Your task to perform on an android device: Go to accessibility settings Image 0: 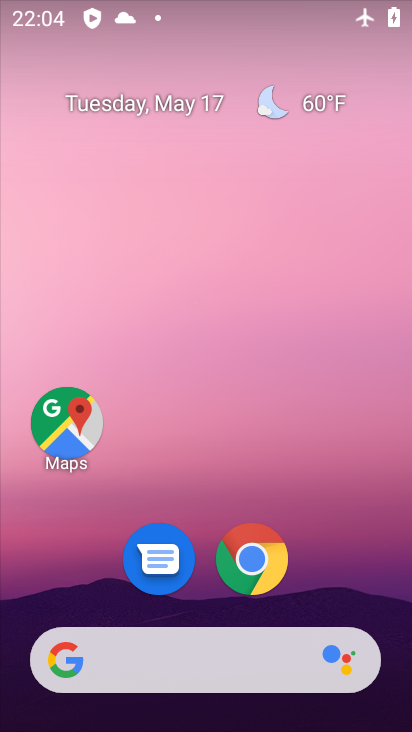
Step 0: drag from (330, 549) to (316, 184)
Your task to perform on an android device: Go to accessibility settings Image 1: 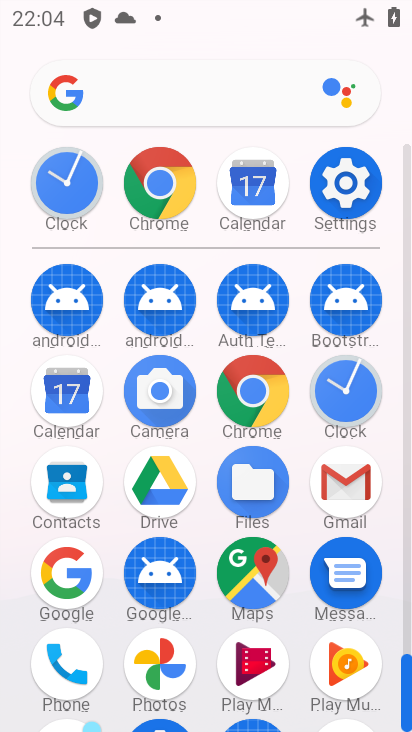
Step 1: click (316, 218)
Your task to perform on an android device: Go to accessibility settings Image 2: 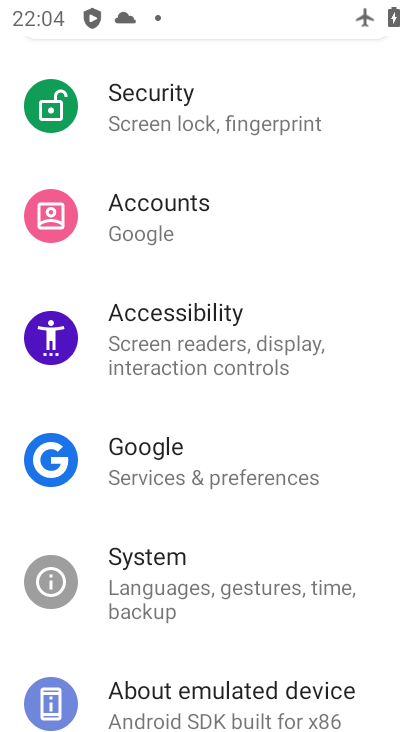
Step 2: drag from (115, 679) to (293, 294)
Your task to perform on an android device: Go to accessibility settings Image 3: 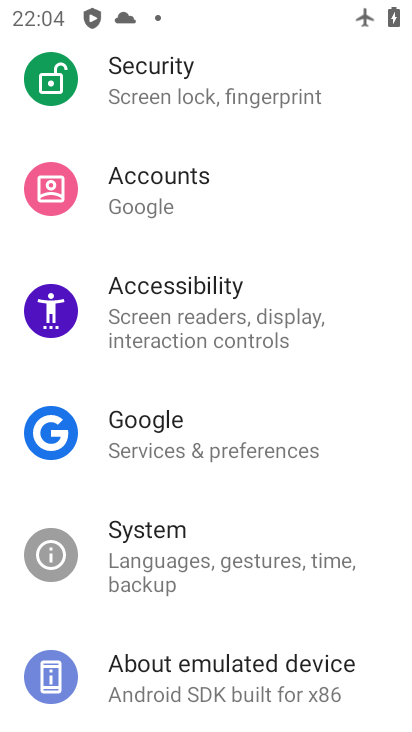
Step 3: drag from (195, 629) to (317, 319)
Your task to perform on an android device: Go to accessibility settings Image 4: 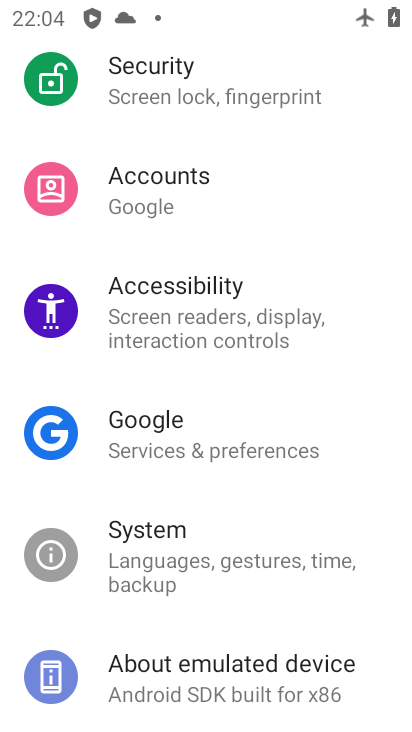
Step 4: click (282, 331)
Your task to perform on an android device: Go to accessibility settings Image 5: 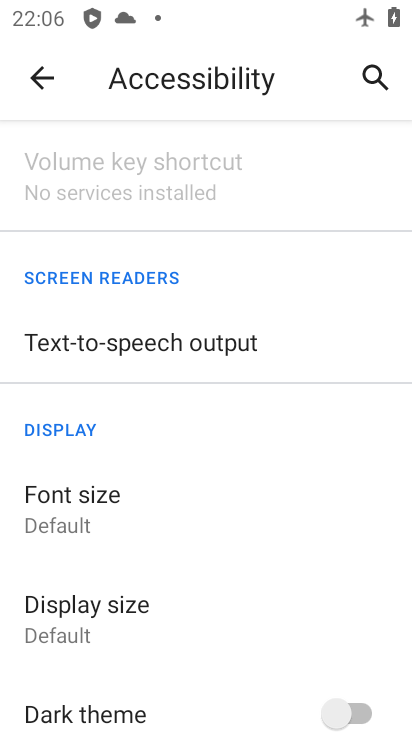
Step 5: task complete